Your task to perform on an android device: Go to notification settings Image 0: 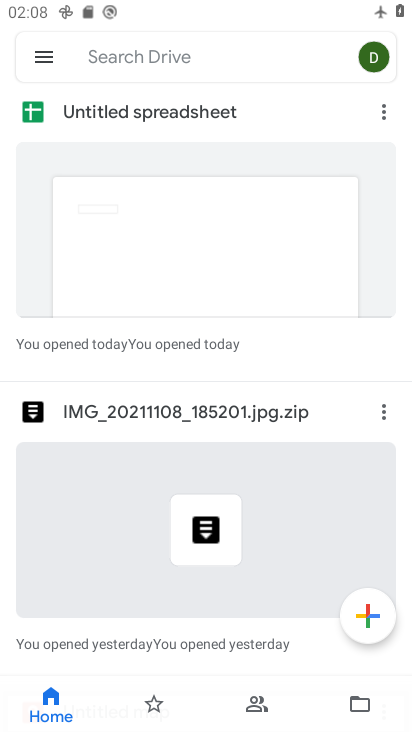
Step 0: press home button
Your task to perform on an android device: Go to notification settings Image 1: 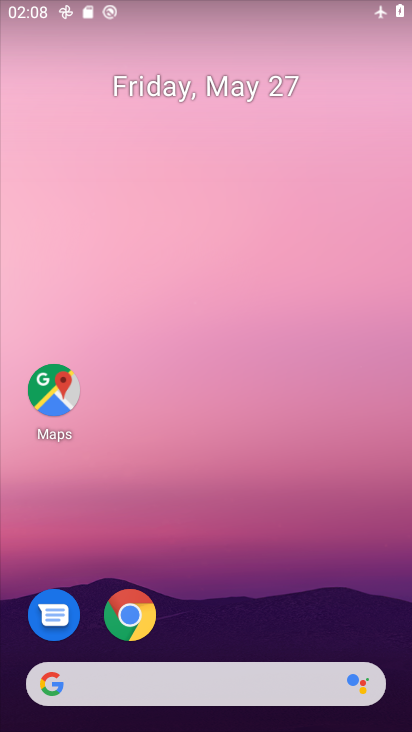
Step 1: drag from (371, 602) to (345, 238)
Your task to perform on an android device: Go to notification settings Image 2: 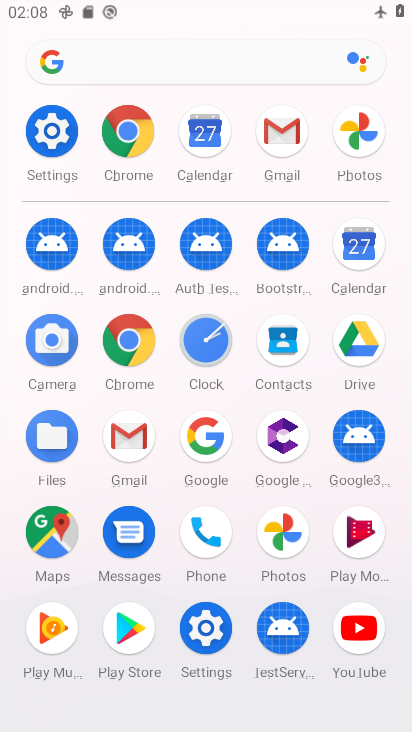
Step 2: click (210, 624)
Your task to perform on an android device: Go to notification settings Image 3: 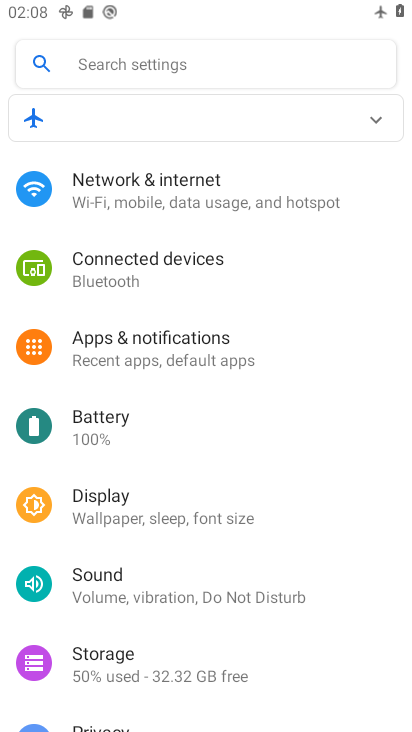
Step 3: drag from (341, 601) to (337, 460)
Your task to perform on an android device: Go to notification settings Image 4: 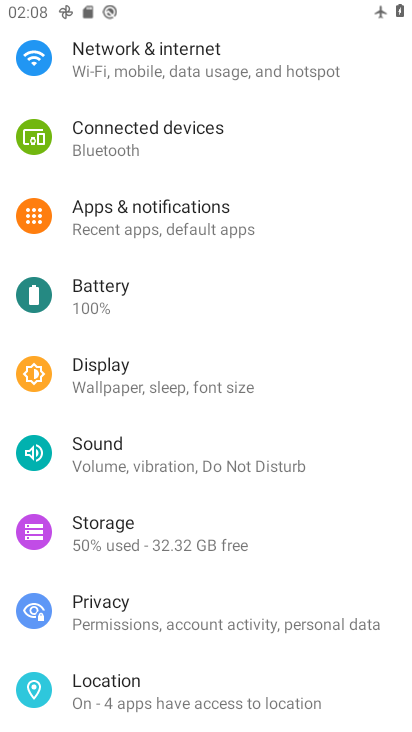
Step 4: drag from (345, 588) to (352, 508)
Your task to perform on an android device: Go to notification settings Image 5: 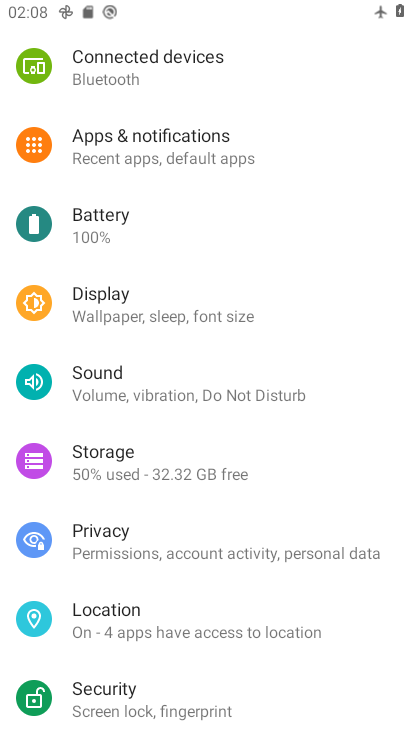
Step 5: drag from (368, 654) to (368, 530)
Your task to perform on an android device: Go to notification settings Image 6: 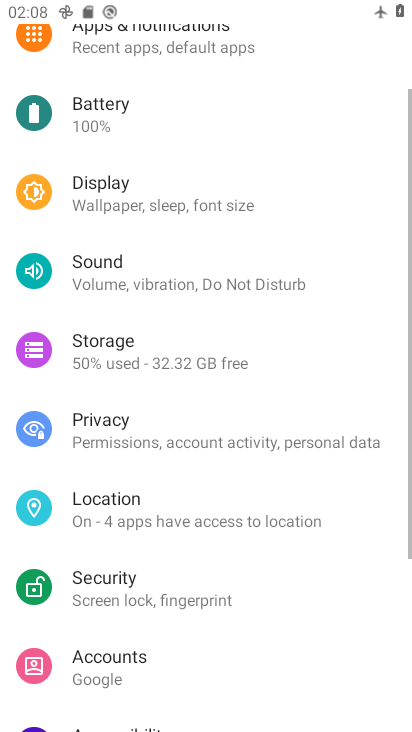
Step 6: drag from (364, 668) to (359, 576)
Your task to perform on an android device: Go to notification settings Image 7: 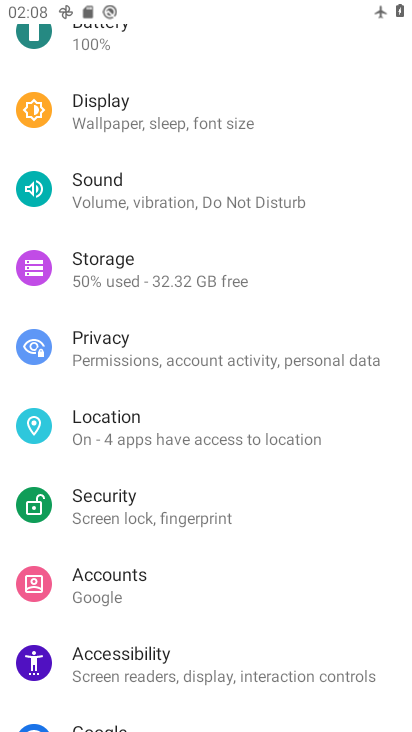
Step 7: drag from (356, 664) to (356, 574)
Your task to perform on an android device: Go to notification settings Image 8: 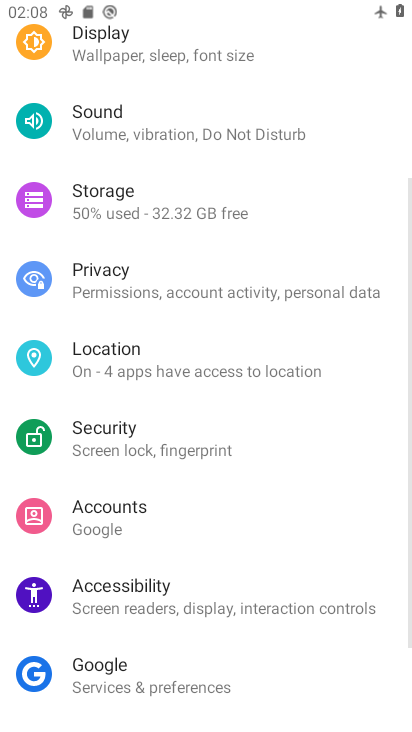
Step 8: drag from (366, 681) to (370, 590)
Your task to perform on an android device: Go to notification settings Image 9: 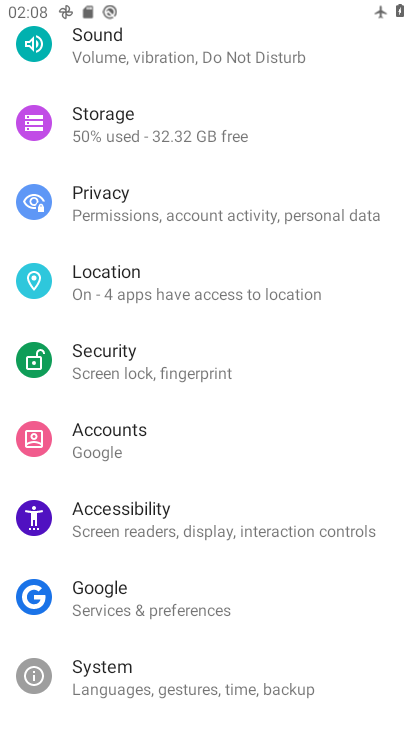
Step 9: drag from (369, 670) to (371, 582)
Your task to perform on an android device: Go to notification settings Image 10: 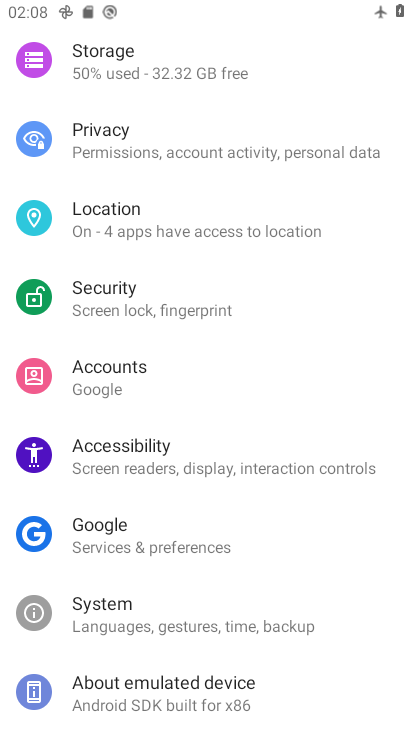
Step 10: drag from (372, 503) to (369, 584)
Your task to perform on an android device: Go to notification settings Image 11: 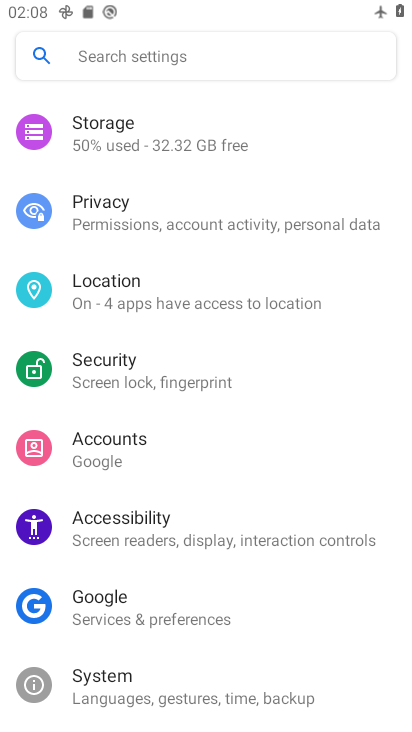
Step 11: drag from (362, 455) to (375, 638)
Your task to perform on an android device: Go to notification settings Image 12: 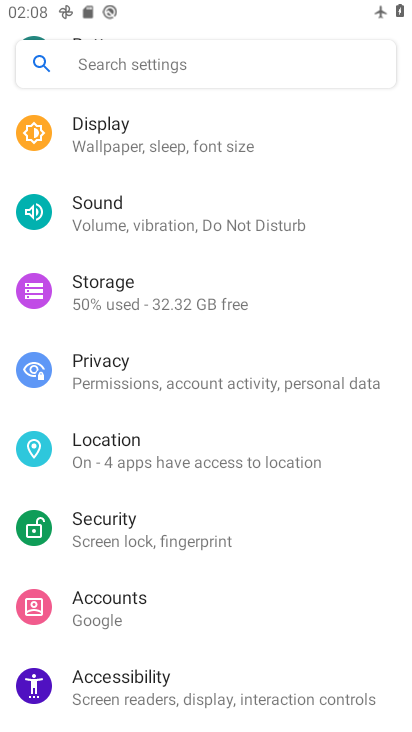
Step 12: drag from (339, 303) to (327, 436)
Your task to perform on an android device: Go to notification settings Image 13: 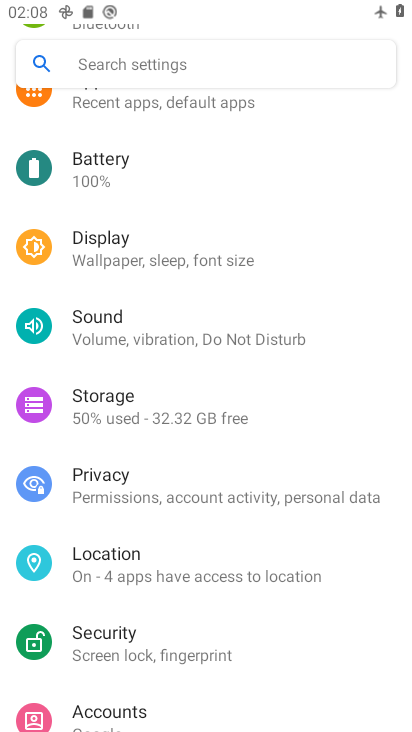
Step 13: press home button
Your task to perform on an android device: Go to notification settings Image 14: 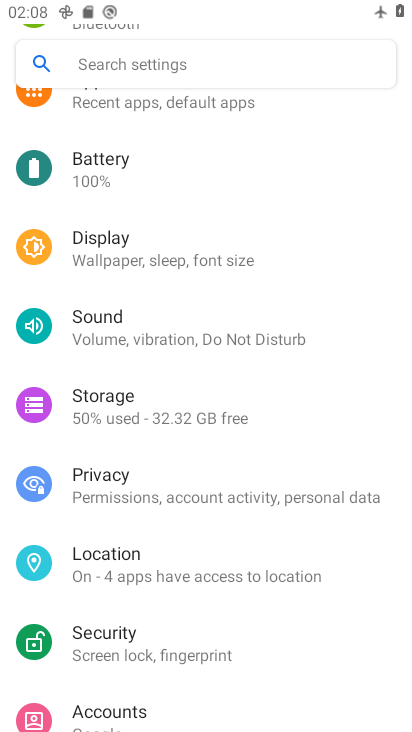
Step 14: drag from (127, 464) to (330, 281)
Your task to perform on an android device: Go to notification settings Image 15: 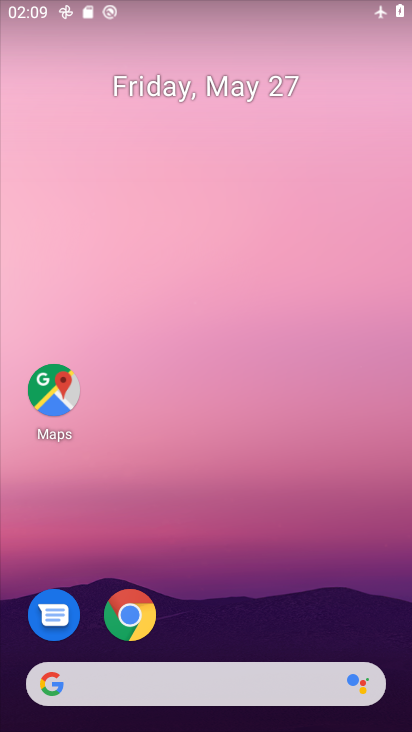
Step 15: drag from (335, 607) to (335, 203)
Your task to perform on an android device: Go to notification settings Image 16: 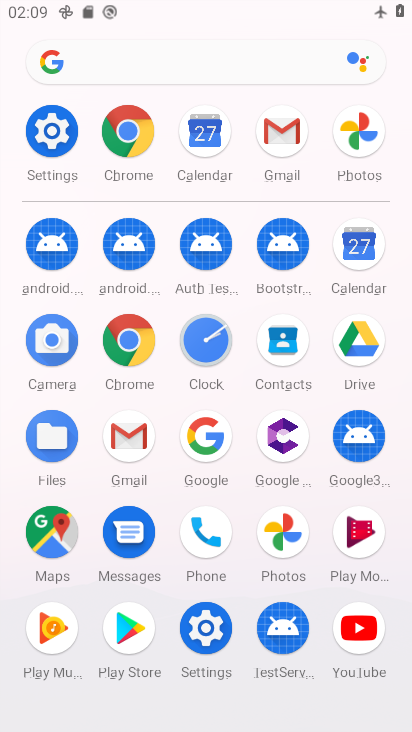
Step 16: click (71, 153)
Your task to perform on an android device: Go to notification settings Image 17: 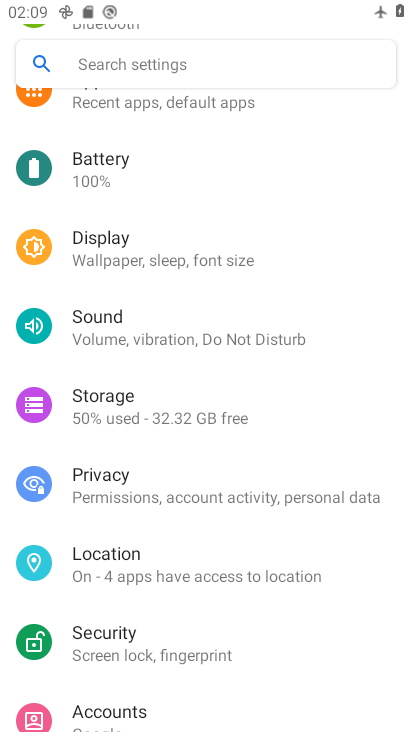
Step 17: drag from (320, 252) to (322, 367)
Your task to perform on an android device: Go to notification settings Image 18: 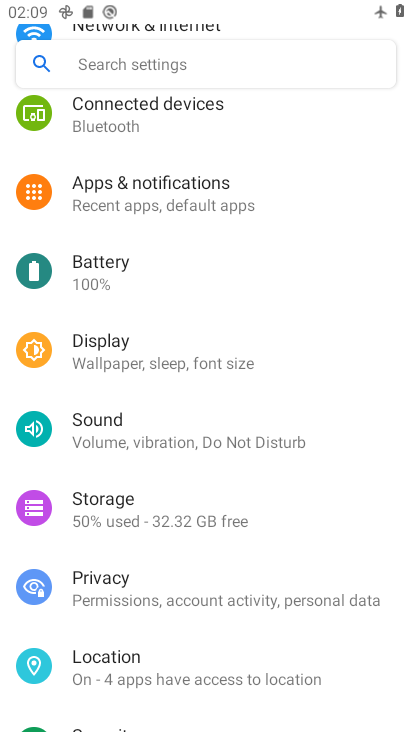
Step 18: click (250, 209)
Your task to perform on an android device: Go to notification settings Image 19: 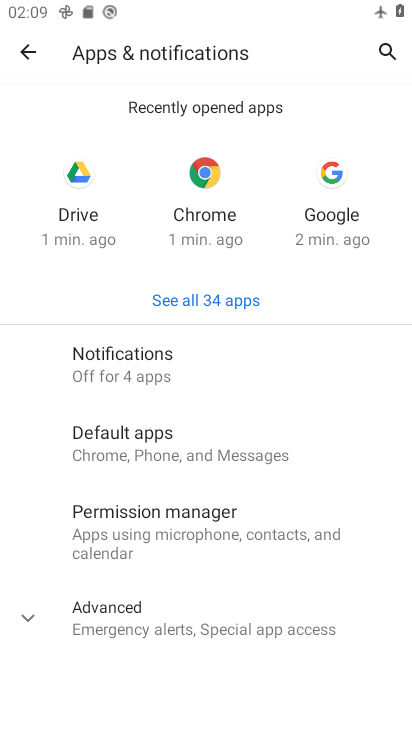
Step 19: click (200, 373)
Your task to perform on an android device: Go to notification settings Image 20: 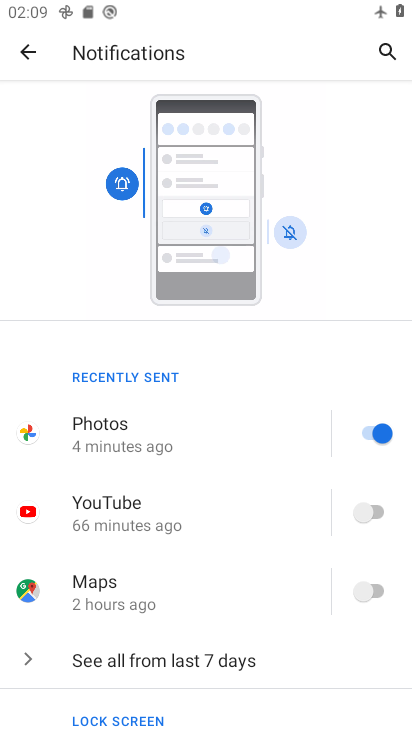
Step 20: task complete